Your task to perform on an android device: turn off priority inbox in the gmail app Image 0: 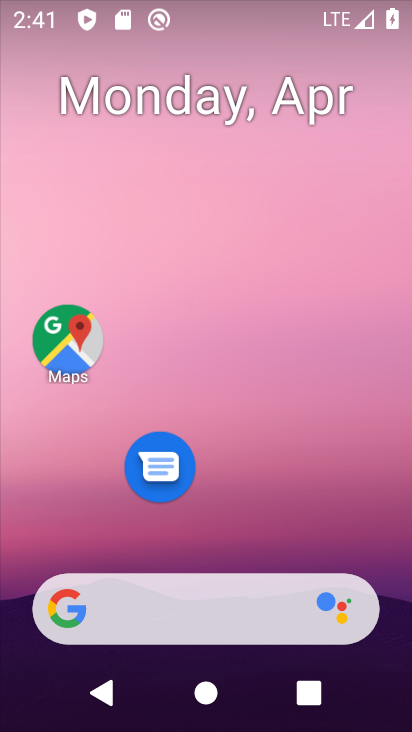
Step 0: drag from (303, 509) to (360, 93)
Your task to perform on an android device: turn off priority inbox in the gmail app Image 1: 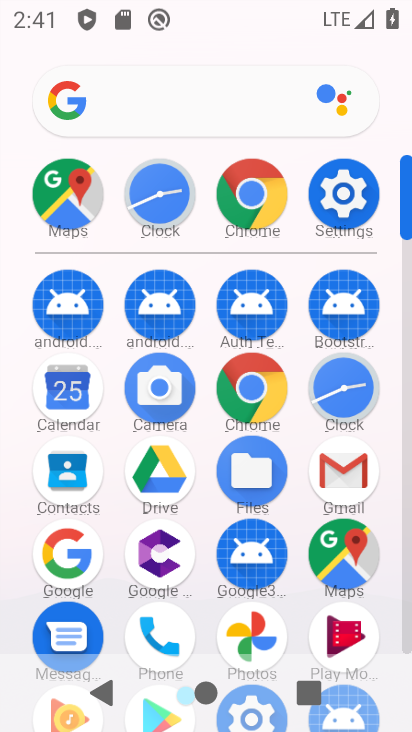
Step 1: click (345, 473)
Your task to perform on an android device: turn off priority inbox in the gmail app Image 2: 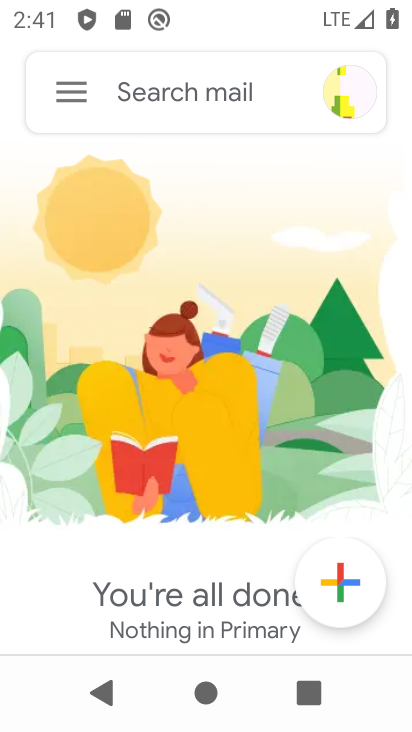
Step 2: click (63, 92)
Your task to perform on an android device: turn off priority inbox in the gmail app Image 3: 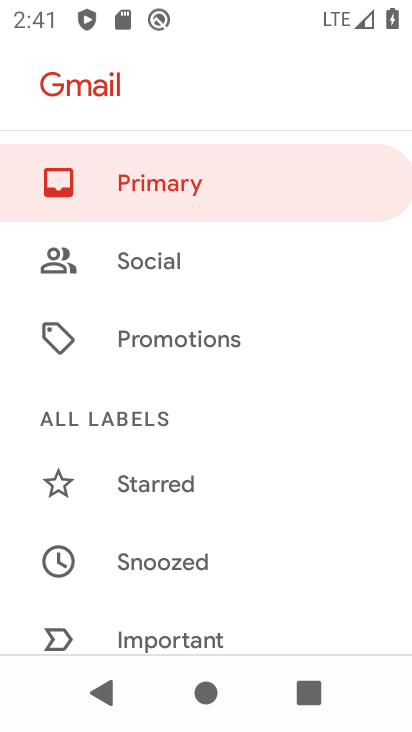
Step 3: drag from (230, 478) to (273, 275)
Your task to perform on an android device: turn off priority inbox in the gmail app Image 4: 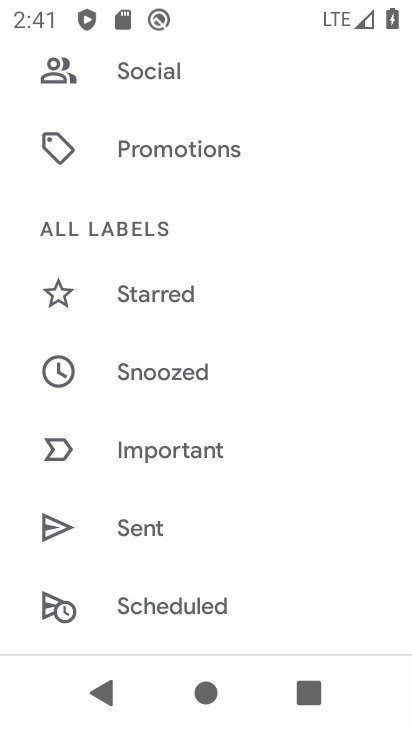
Step 4: drag from (280, 544) to (327, 330)
Your task to perform on an android device: turn off priority inbox in the gmail app Image 5: 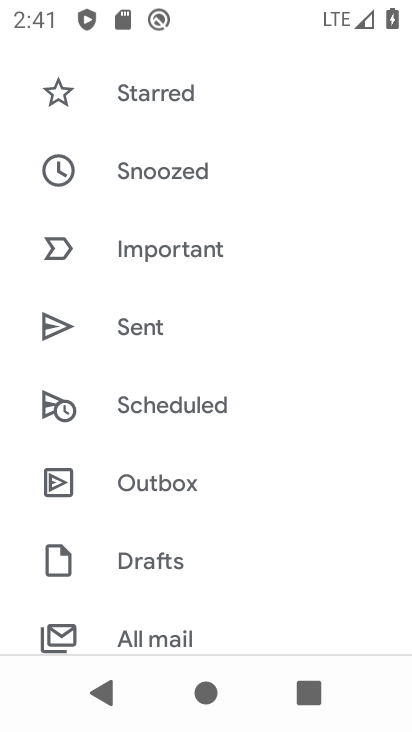
Step 5: drag from (312, 567) to (341, 248)
Your task to perform on an android device: turn off priority inbox in the gmail app Image 6: 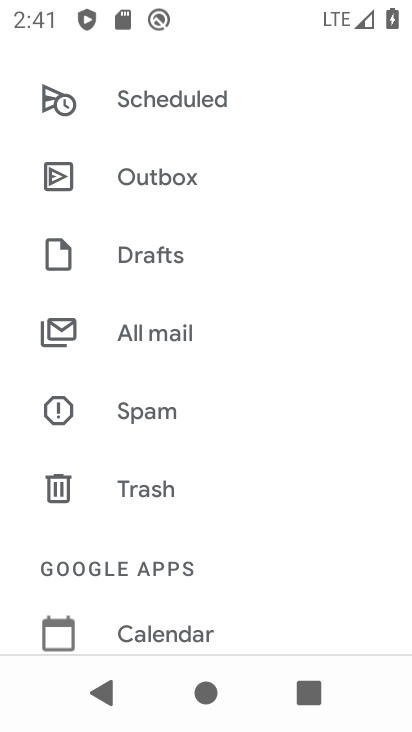
Step 6: drag from (310, 614) to (345, 294)
Your task to perform on an android device: turn off priority inbox in the gmail app Image 7: 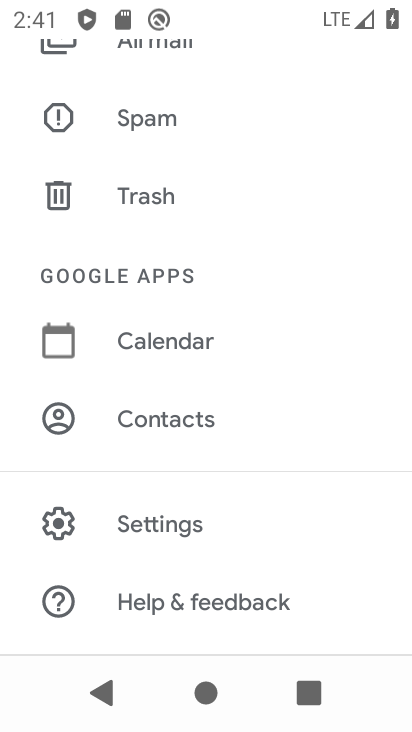
Step 7: click (300, 508)
Your task to perform on an android device: turn off priority inbox in the gmail app Image 8: 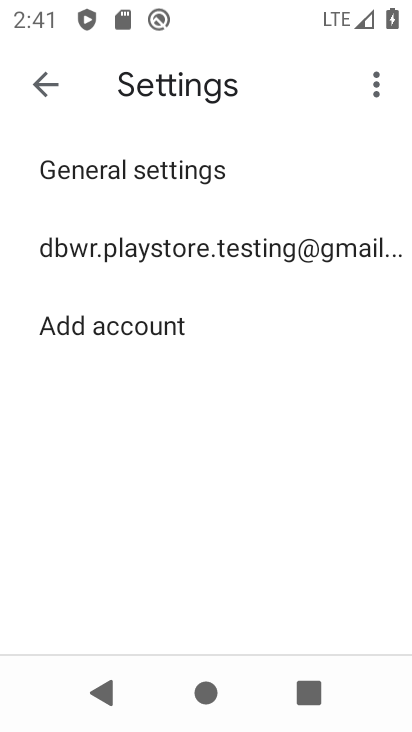
Step 8: click (327, 248)
Your task to perform on an android device: turn off priority inbox in the gmail app Image 9: 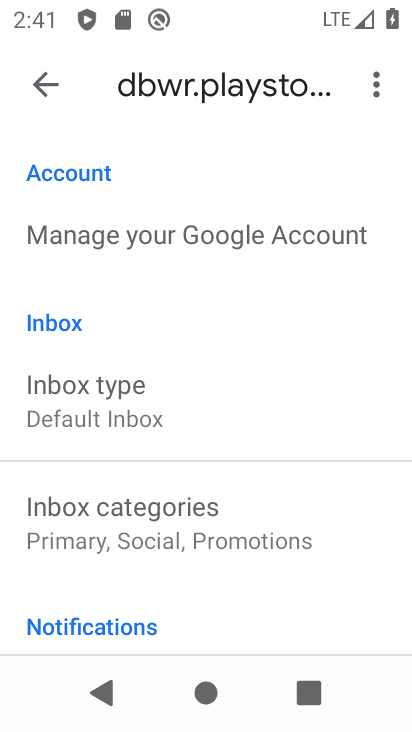
Step 9: click (161, 428)
Your task to perform on an android device: turn off priority inbox in the gmail app Image 10: 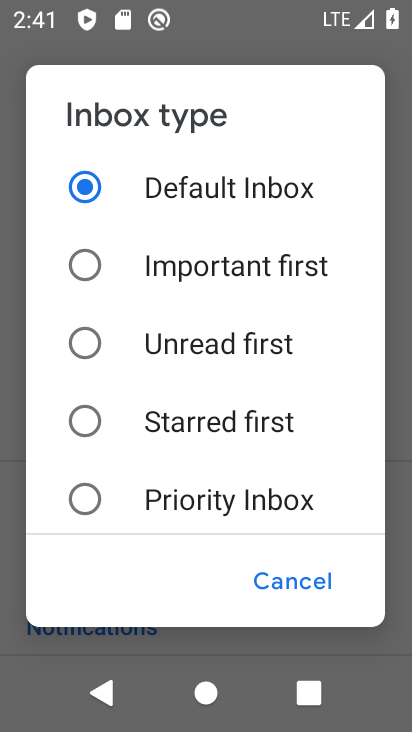
Step 10: click (224, 199)
Your task to perform on an android device: turn off priority inbox in the gmail app Image 11: 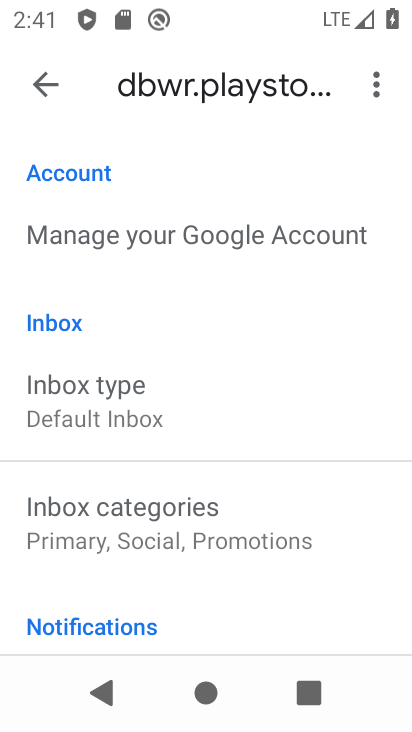
Step 11: task complete